Your task to perform on an android device: Go to accessibility settings Image 0: 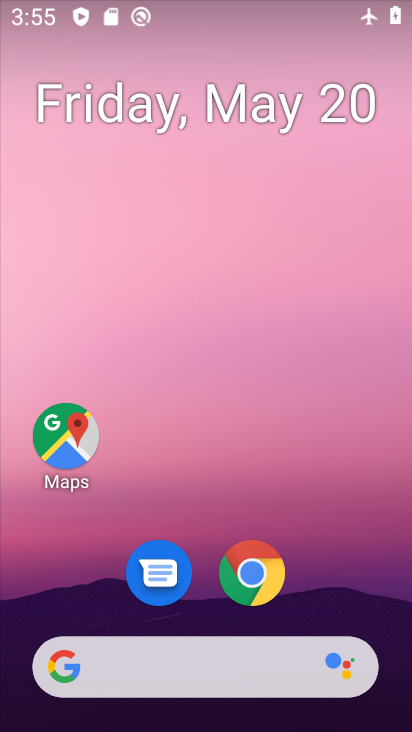
Step 0: drag from (356, 611) to (257, 111)
Your task to perform on an android device: Go to accessibility settings Image 1: 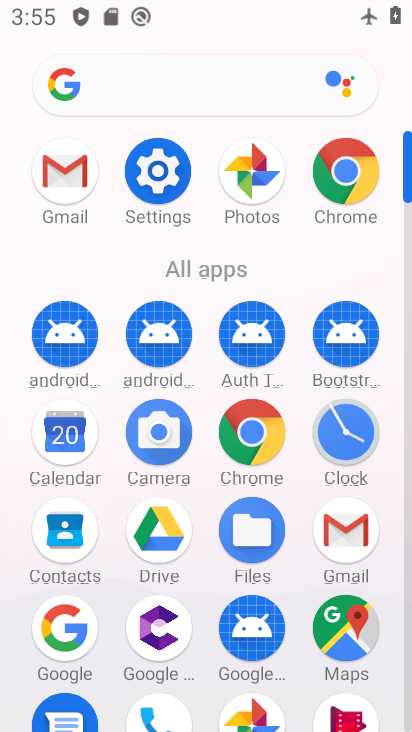
Step 1: click (159, 174)
Your task to perform on an android device: Go to accessibility settings Image 2: 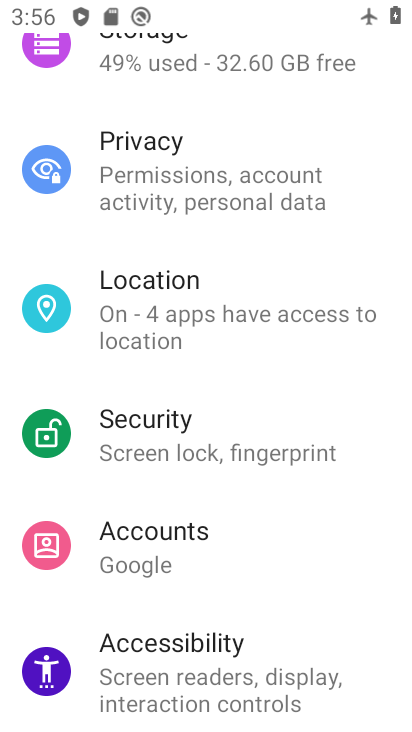
Step 2: click (321, 691)
Your task to perform on an android device: Go to accessibility settings Image 3: 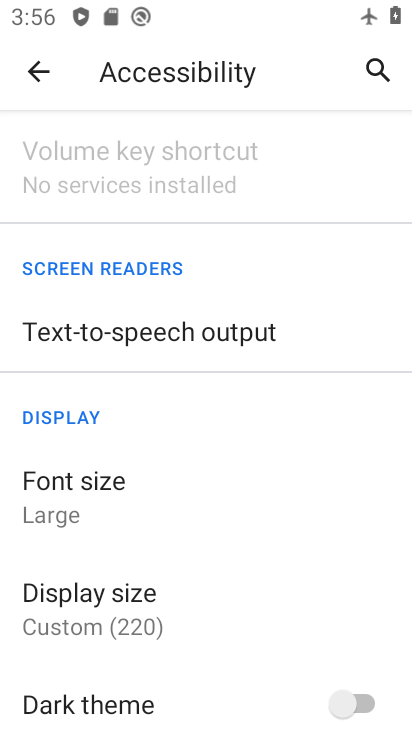
Step 3: task complete